Your task to perform on an android device: turn on the 12-hour format for clock Image 0: 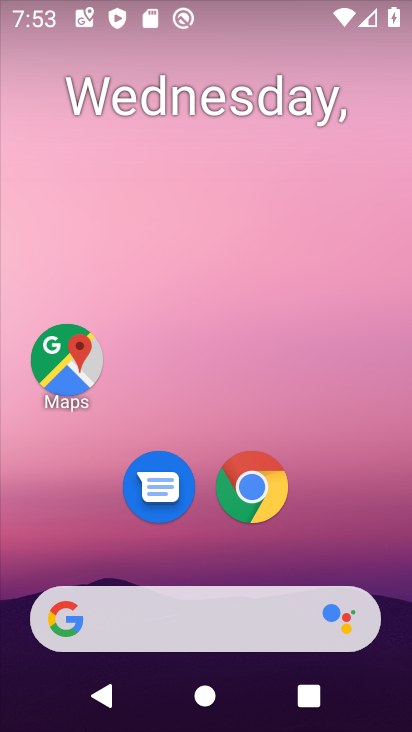
Step 0: drag from (366, 541) to (372, 230)
Your task to perform on an android device: turn on the 12-hour format for clock Image 1: 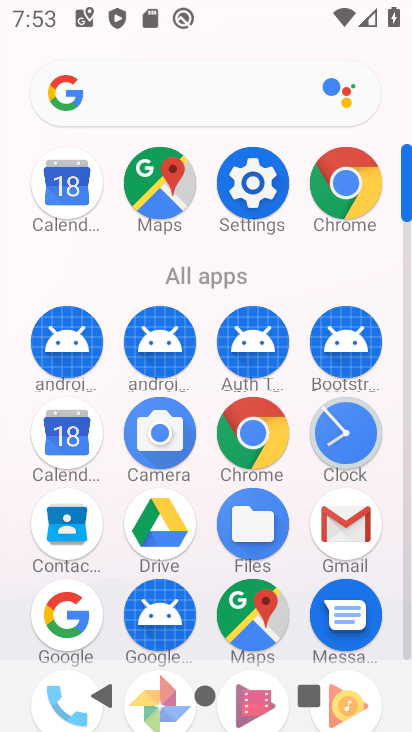
Step 1: click (368, 443)
Your task to perform on an android device: turn on the 12-hour format for clock Image 2: 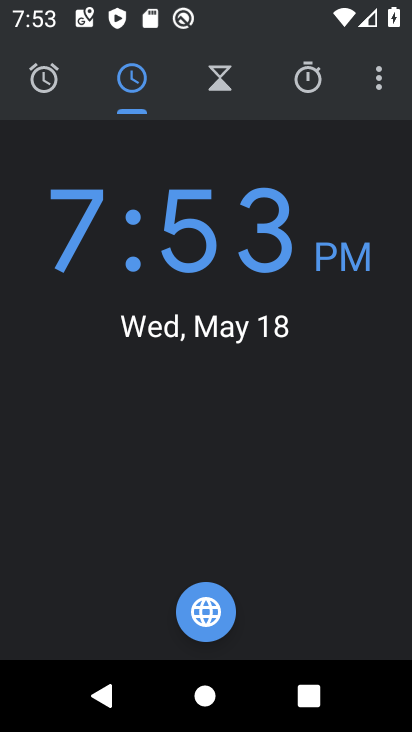
Step 2: click (384, 82)
Your task to perform on an android device: turn on the 12-hour format for clock Image 3: 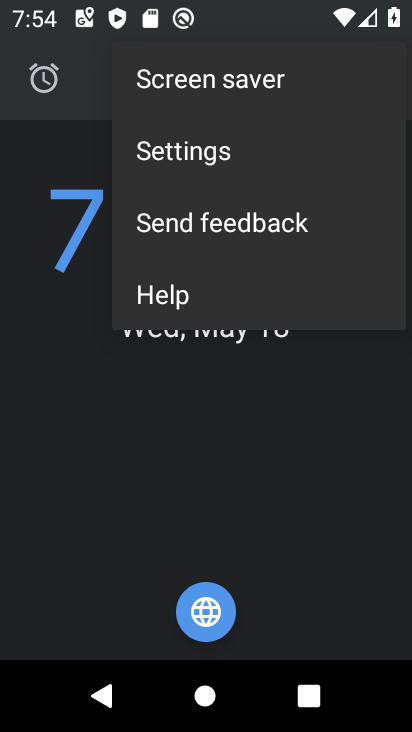
Step 3: click (239, 173)
Your task to perform on an android device: turn on the 12-hour format for clock Image 4: 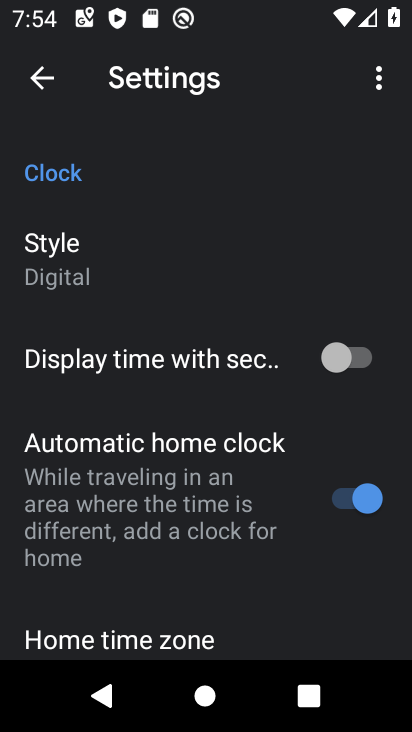
Step 4: drag from (293, 568) to (300, 421)
Your task to perform on an android device: turn on the 12-hour format for clock Image 5: 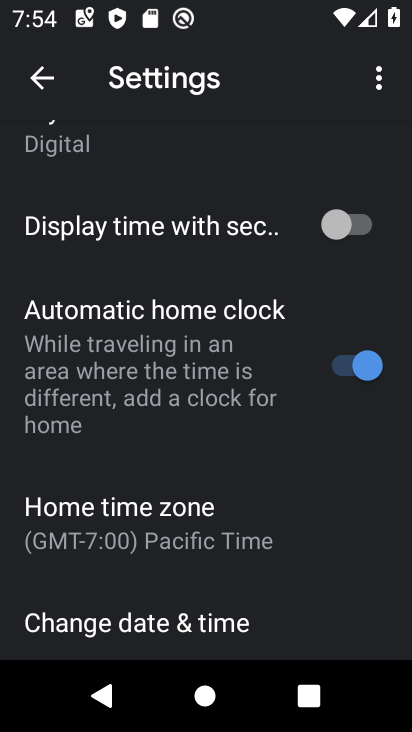
Step 5: drag from (300, 574) to (297, 421)
Your task to perform on an android device: turn on the 12-hour format for clock Image 6: 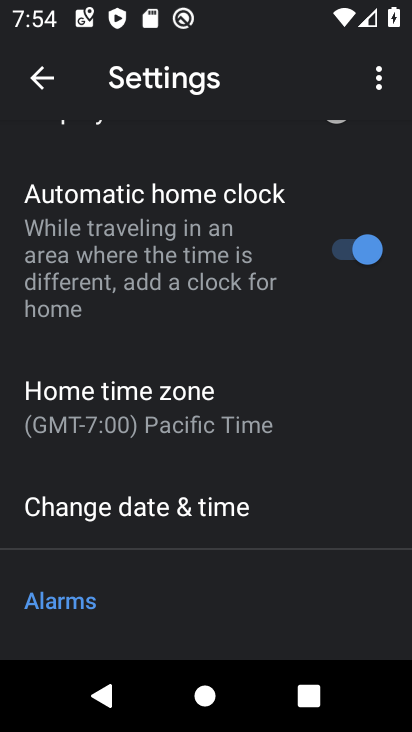
Step 6: drag from (290, 580) to (298, 439)
Your task to perform on an android device: turn on the 12-hour format for clock Image 7: 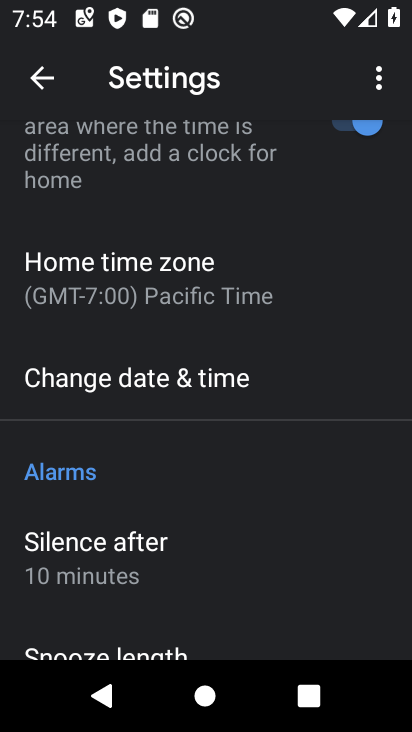
Step 7: drag from (291, 584) to (297, 435)
Your task to perform on an android device: turn on the 12-hour format for clock Image 8: 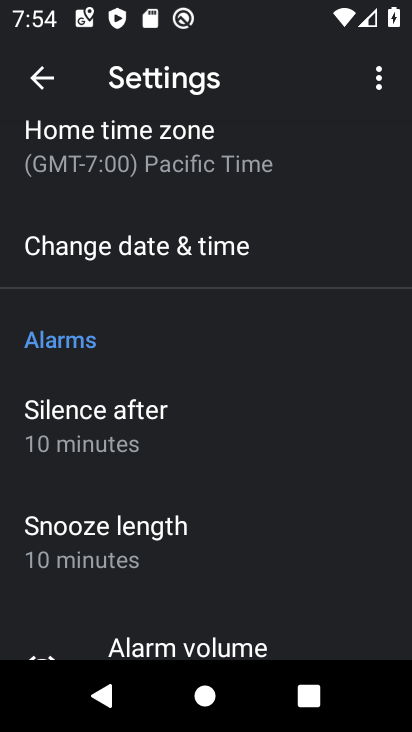
Step 8: drag from (296, 586) to (299, 456)
Your task to perform on an android device: turn on the 12-hour format for clock Image 9: 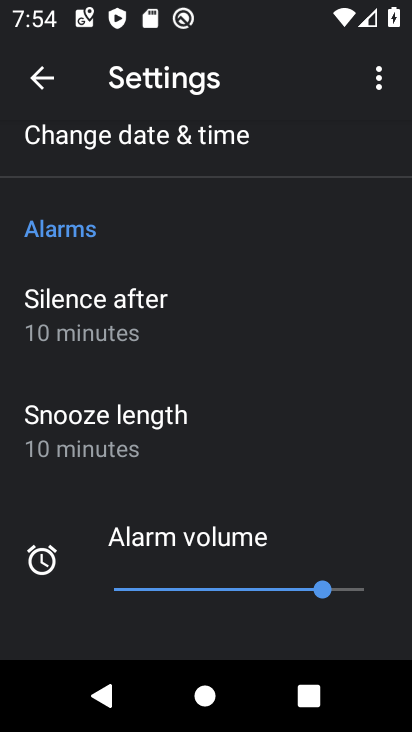
Step 9: drag from (300, 624) to (299, 466)
Your task to perform on an android device: turn on the 12-hour format for clock Image 10: 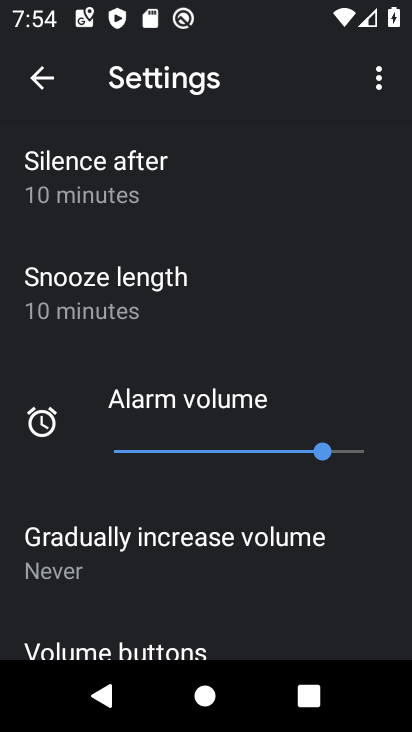
Step 10: drag from (304, 633) to (303, 484)
Your task to perform on an android device: turn on the 12-hour format for clock Image 11: 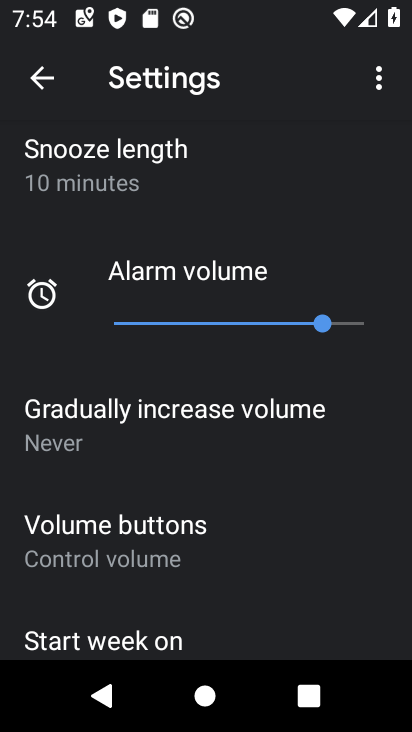
Step 11: drag from (295, 606) to (298, 471)
Your task to perform on an android device: turn on the 12-hour format for clock Image 12: 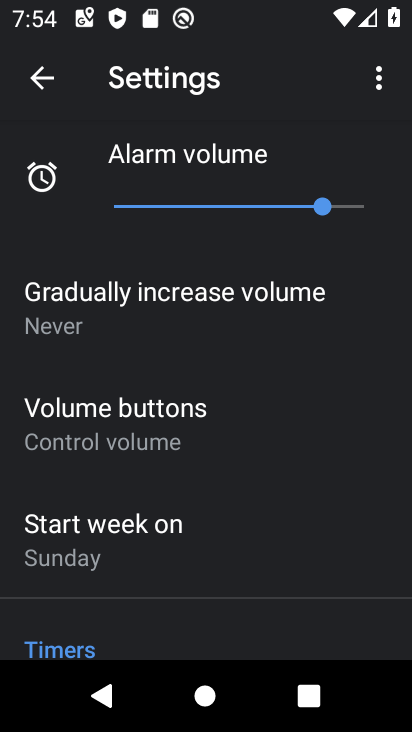
Step 12: drag from (289, 618) to (318, 462)
Your task to perform on an android device: turn on the 12-hour format for clock Image 13: 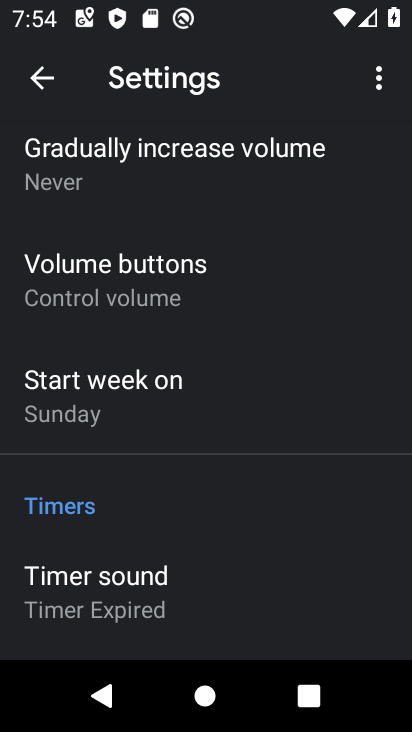
Step 13: drag from (310, 597) to (330, 462)
Your task to perform on an android device: turn on the 12-hour format for clock Image 14: 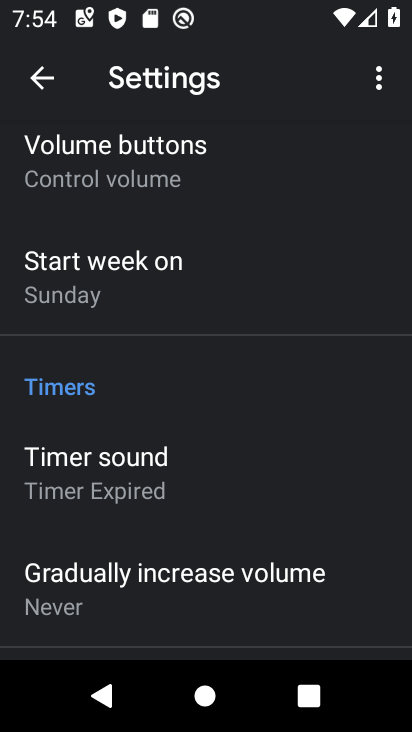
Step 14: drag from (347, 620) to (346, 492)
Your task to perform on an android device: turn on the 12-hour format for clock Image 15: 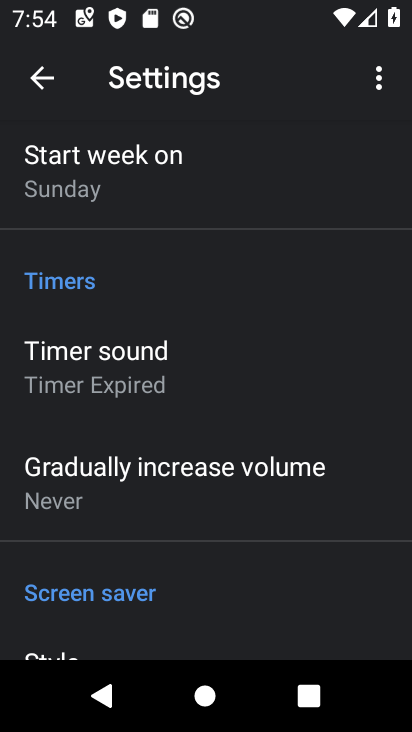
Step 15: drag from (340, 609) to (346, 510)
Your task to perform on an android device: turn on the 12-hour format for clock Image 16: 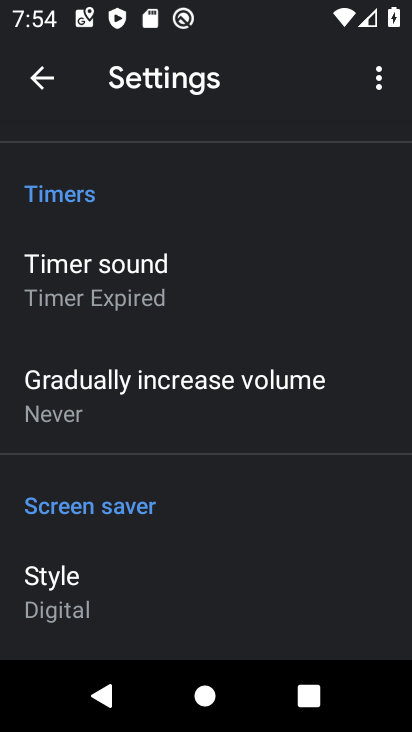
Step 16: drag from (354, 600) to (356, 492)
Your task to perform on an android device: turn on the 12-hour format for clock Image 17: 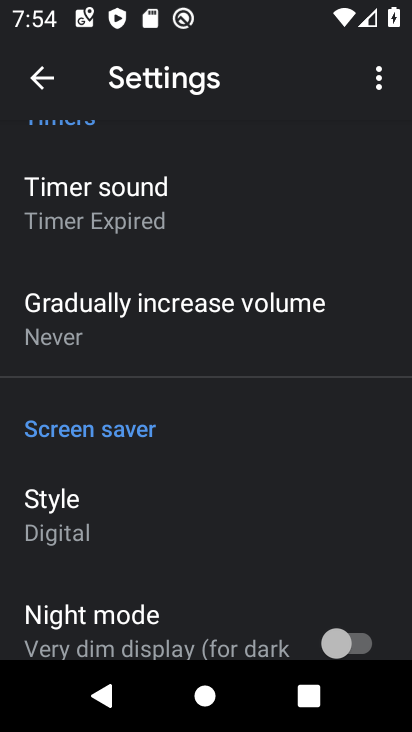
Step 17: drag from (360, 346) to (350, 401)
Your task to perform on an android device: turn on the 12-hour format for clock Image 18: 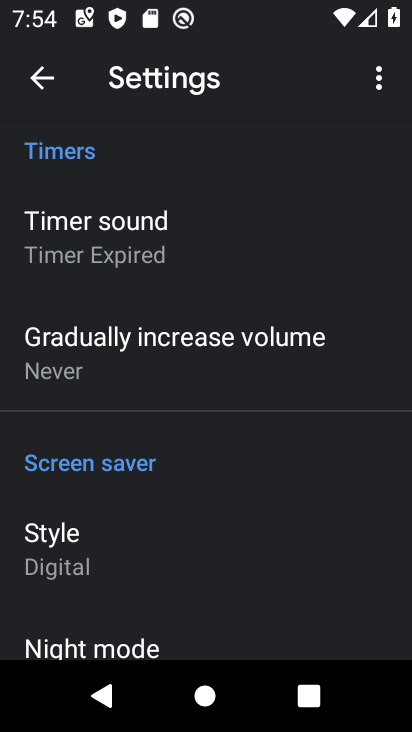
Step 18: drag from (346, 354) to (338, 457)
Your task to perform on an android device: turn on the 12-hour format for clock Image 19: 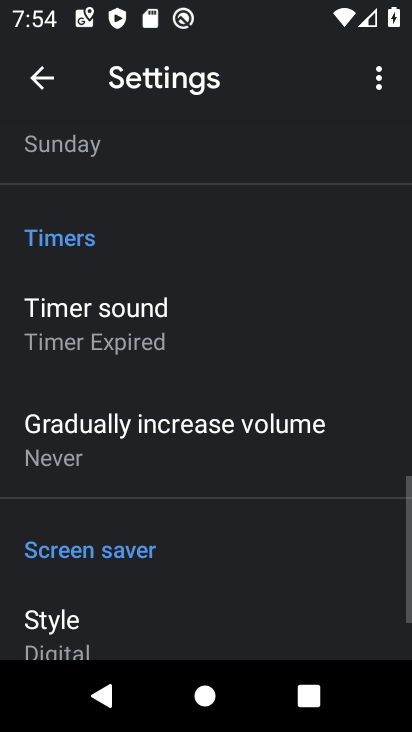
Step 19: drag from (338, 330) to (338, 457)
Your task to perform on an android device: turn on the 12-hour format for clock Image 20: 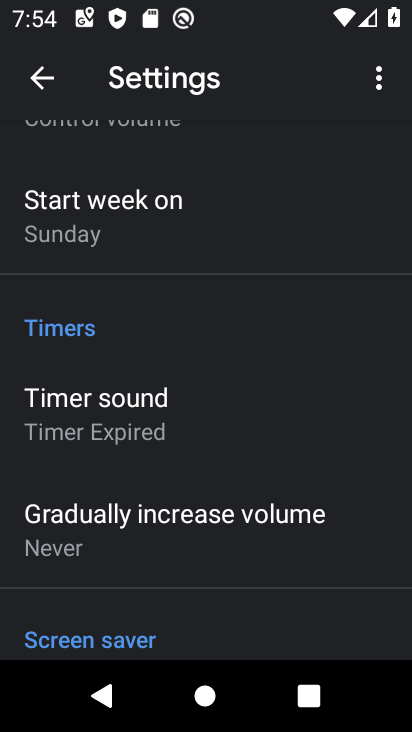
Step 20: drag from (341, 327) to (346, 419)
Your task to perform on an android device: turn on the 12-hour format for clock Image 21: 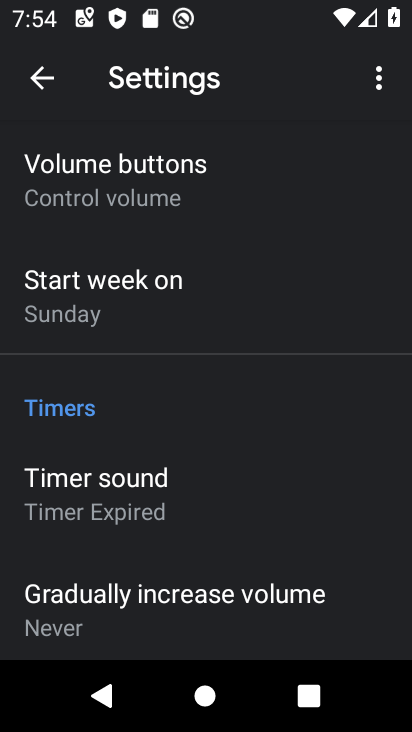
Step 21: drag from (346, 285) to (354, 354)
Your task to perform on an android device: turn on the 12-hour format for clock Image 22: 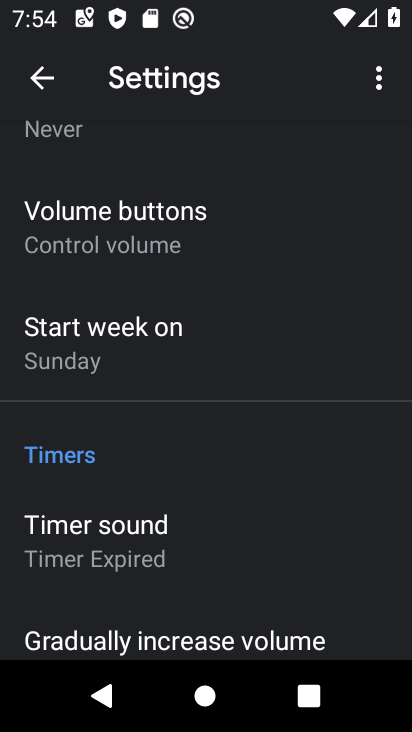
Step 22: drag from (357, 269) to (356, 376)
Your task to perform on an android device: turn on the 12-hour format for clock Image 23: 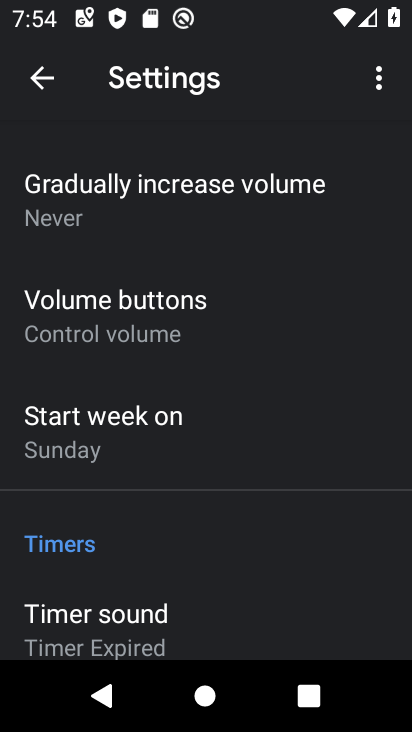
Step 23: drag from (336, 206) to (328, 327)
Your task to perform on an android device: turn on the 12-hour format for clock Image 24: 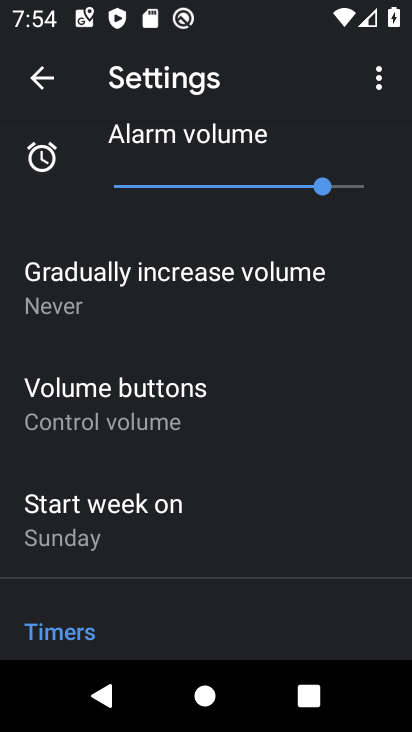
Step 24: drag from (349, 169) to (350, 329)
Your task to perform on an android device: turn on the 12-hour format for clock Image 25: 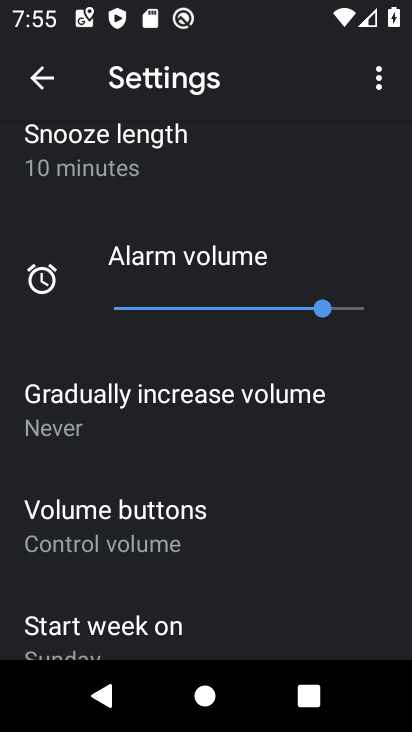
Step 25: drag from (370, 239) to (360, 346)
Your task to perform on an android device: turn on the 12-hour format for clock Image 26: 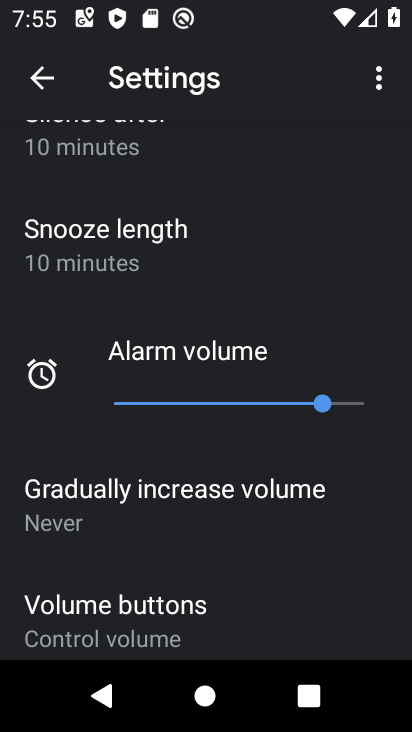
Step 26: drag from (348, 236) to (349, 335)
Your task to perform on an android device: turn on the 12-hour format for clock Image 27: 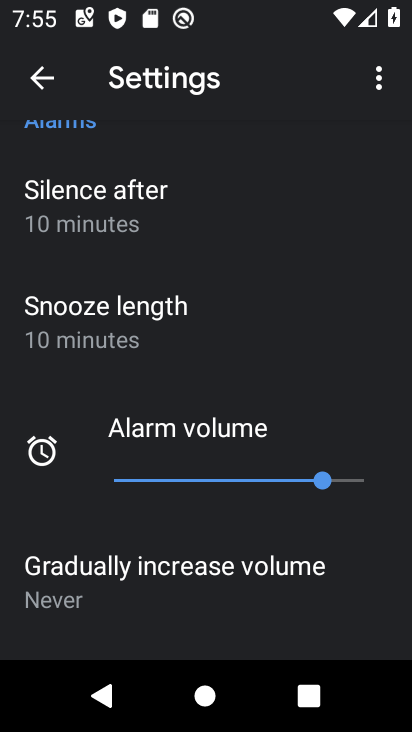
Step 27: drag from (329, 212) to (324, 294)
Your task to perform on an android device: turn on the 12-hour format for clock Image 28: 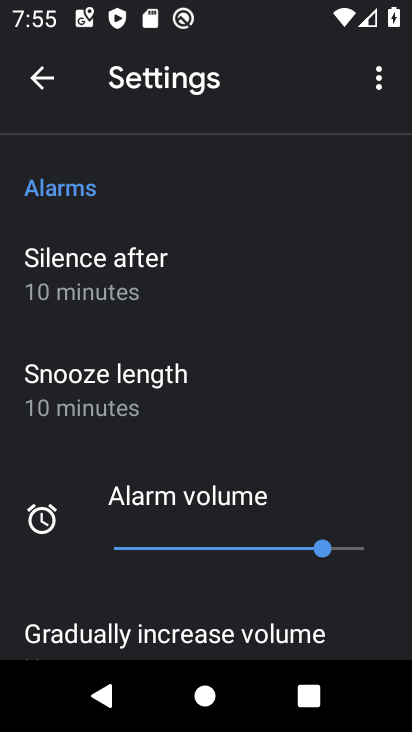
Step 28: drag from (322, 236) to (330, 318)
Your task to perform on an android device: turn on the 12-hour format for clock Image 29: 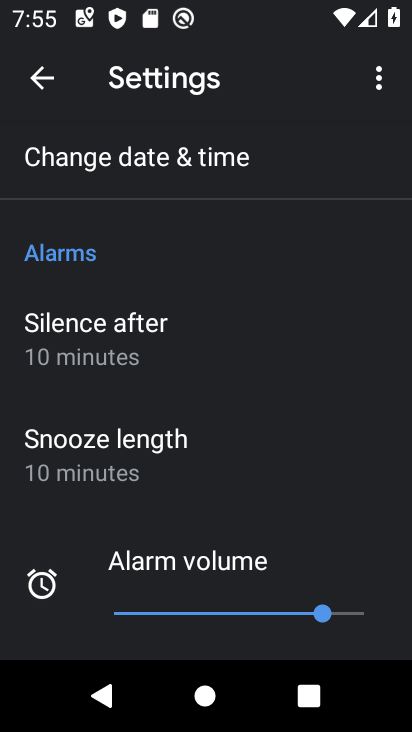
Step 29: click (256, 170)
Your task to perform on an android device: turn on the 12-hour format for clock Image 30: 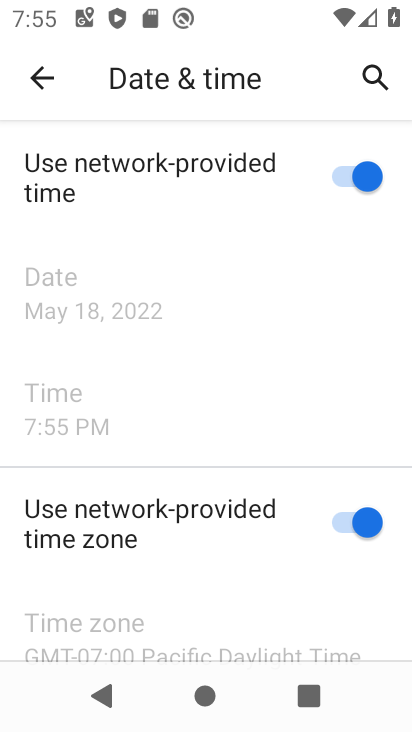
Step 30: task complete